Your task to perform on an android device: change keyboard looks Image 0: 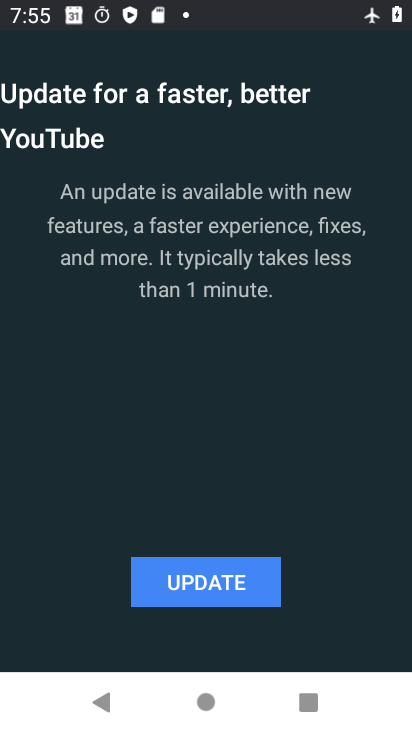
Step 0: press back button
Your task to perform on an android device: change keyboard looks Image 1: 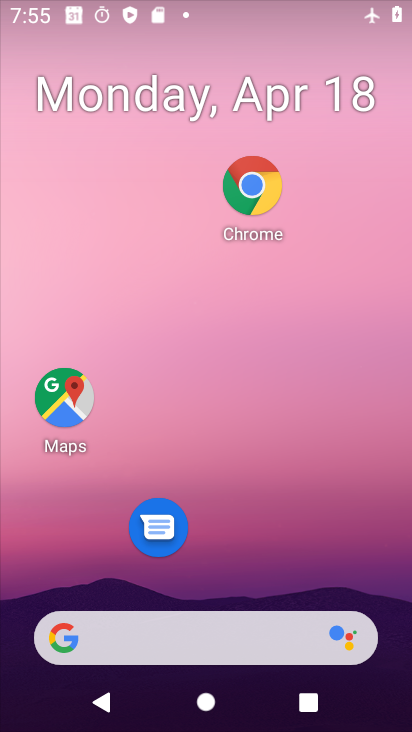
Step 1: drag from (287, 499) to (313, 199)
Your task to perform on an android device: change keyboard looks Image 2: 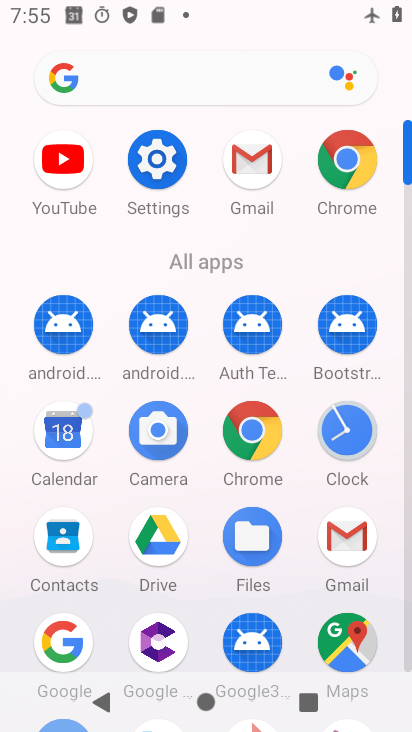
Step 2: click (157, 149)
Your task to perform on an android device: change keyboard looks Image 3: 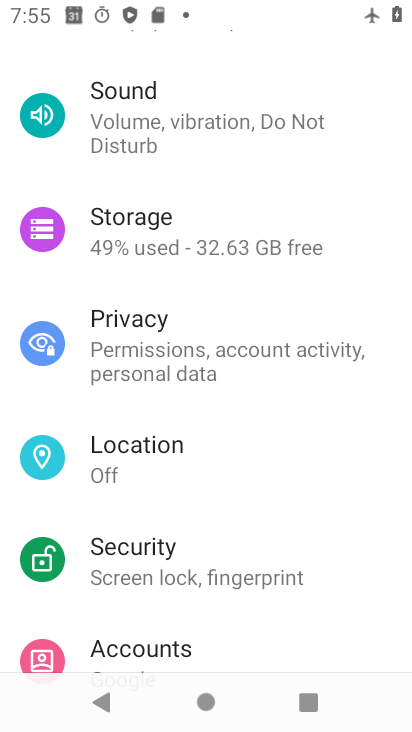
Step 3: drag from (178, 604) to (304, 111)
Your task to perform on an android device: change keyboard looks Image 4: 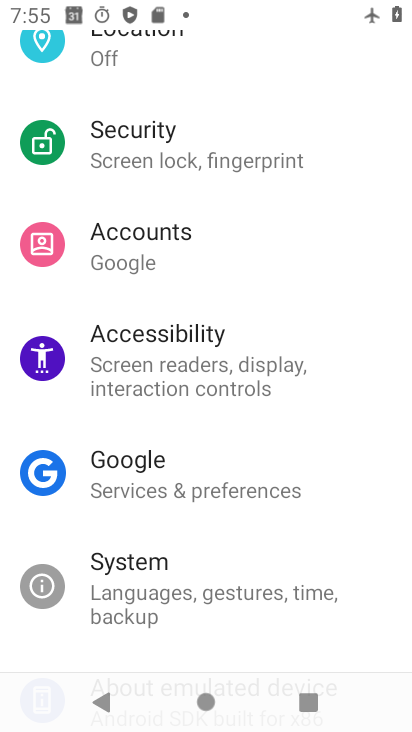
Step 4: click (206, 591)
Your task to perform on an android device: change keyboard looks Image 5: 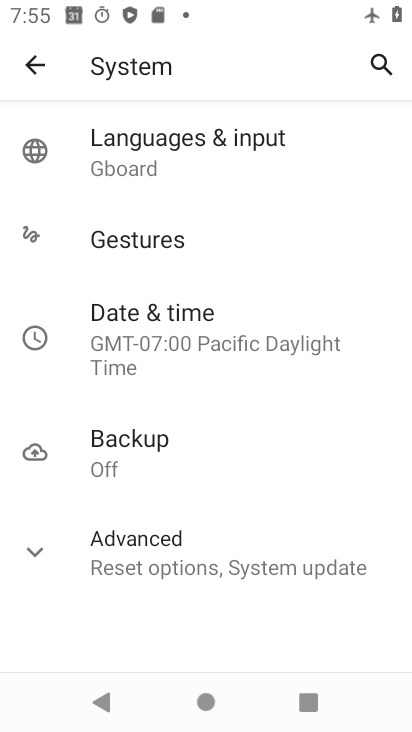
Step 5: click (182, 158)
Your task to perform on an android device: change keyboard looks Image 6: 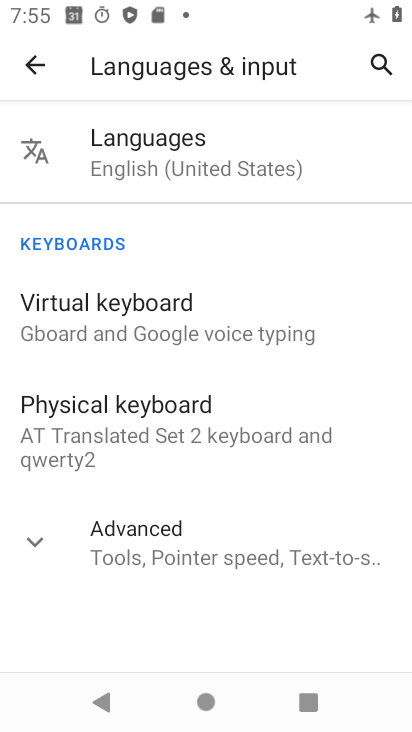
Step 6: click (152, 303)
Your task to perform on an android device: change keyboard looks Image 7: 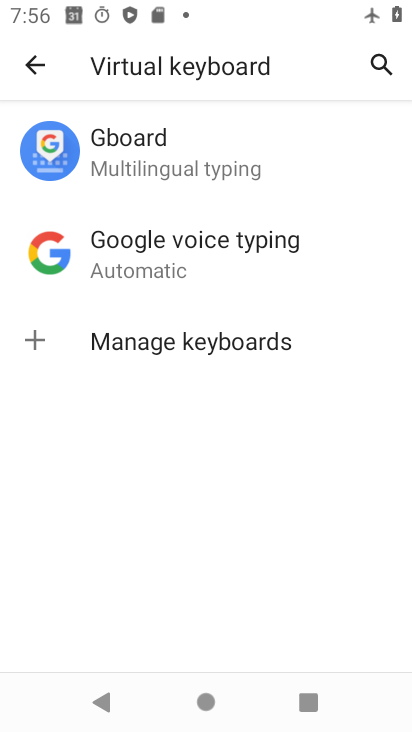
Step 7: click (227, 143)
Your task to perform on an android device: change keyboard looks Image 8: 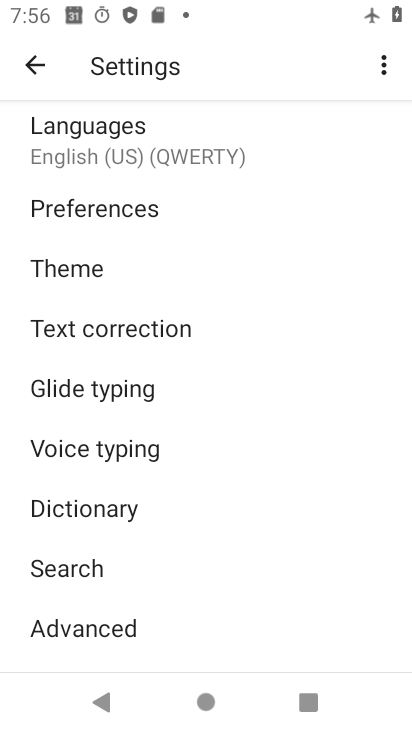
Step 8: click (208, 152)
Your task to perform on an android device: change keyboard looks Image 9: 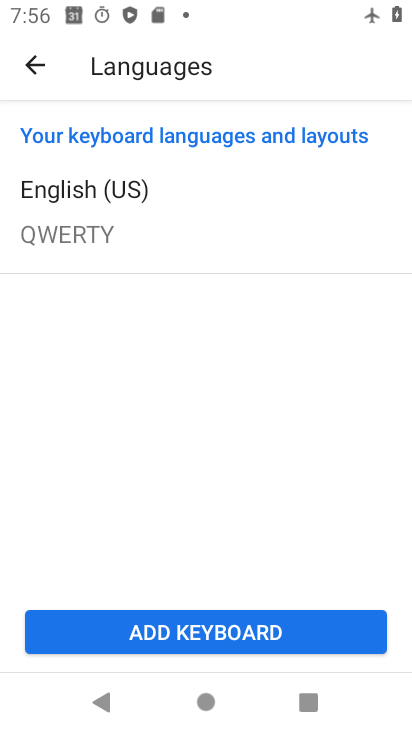
Step 9: click (32, 47)
Your task to perform on an android device: change keyboard looks Image 10: 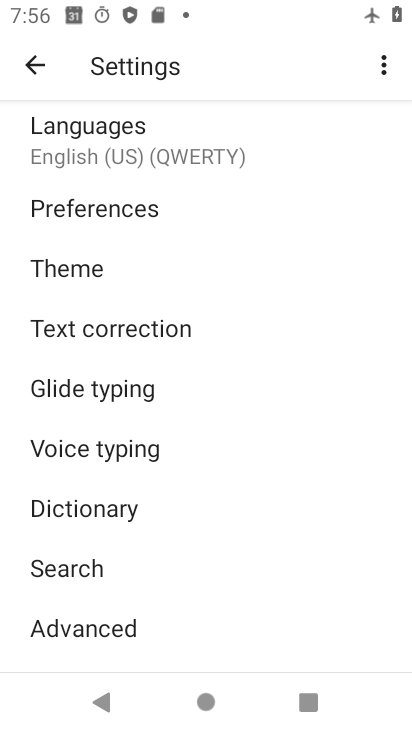
Step 10: click (110, 259)
Your task to perform on an android device: change keyboard looks Image 11: 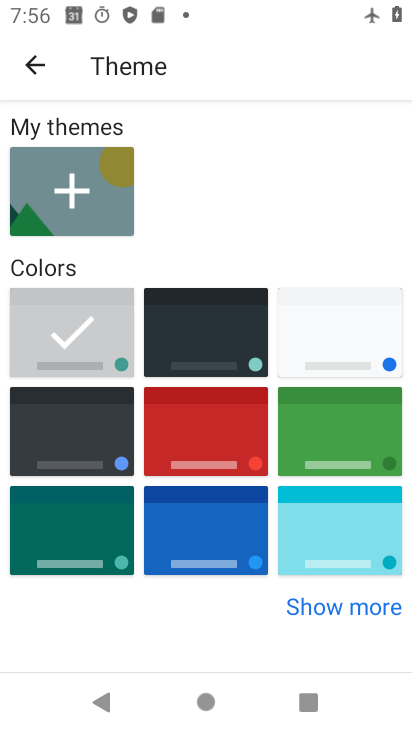
Step 11: drag from (181, 456) to (326, 120)
Your task to perform on an android device: change keyboard looks Image 12: 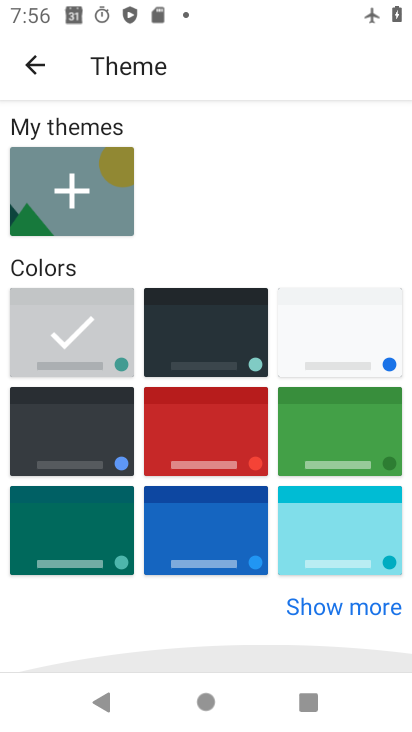
Step 12: click (227, 518)
Your task to perform on an android device: change keyboard looks Image 13: 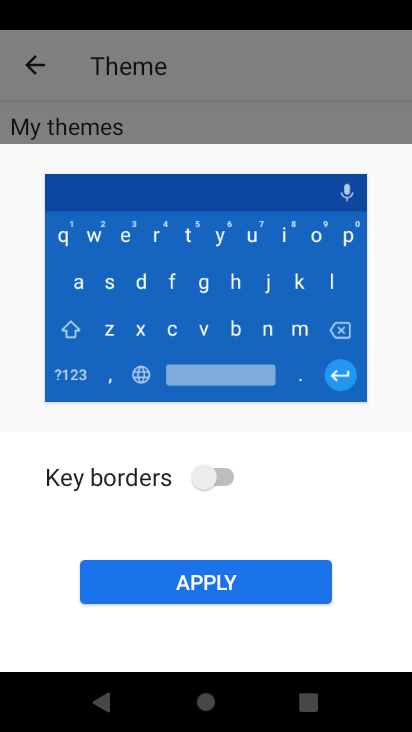
Step 13: click (197, 473)
Your task to perform on an android device: change keyboard looks Image 14: 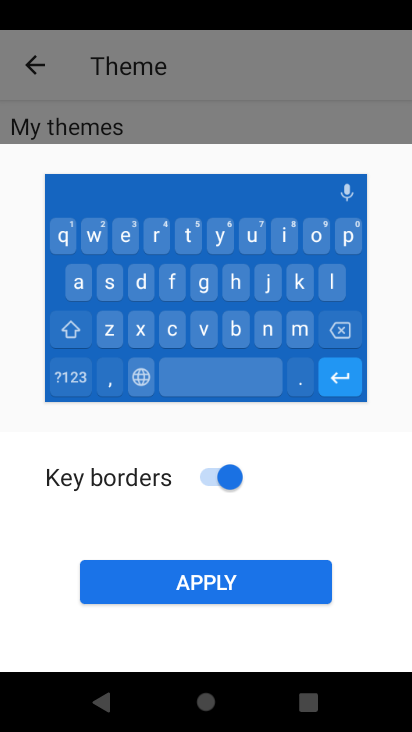
Step 14: click (215, 577)
Your task to perform on an android device: change keyboard looks Image 15: 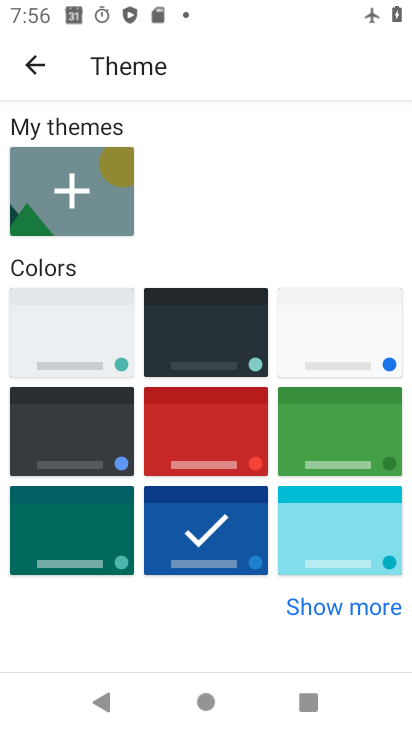
Step 15: task complete